Your task to perform on an android device: open sync settings in chrome Image 0: 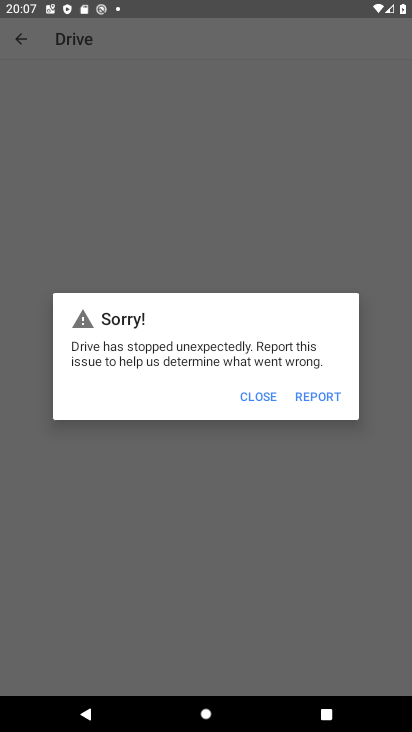
Step 0: press home button
Your task to perform on an android device: open sync settings in chrome Image 1: 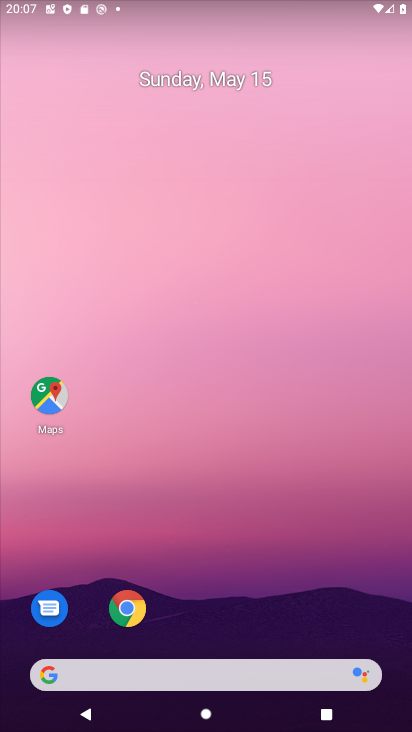
Step 1: click (121, 608)
Your task to perform on an android device: open sync settings in chrome Image 2: 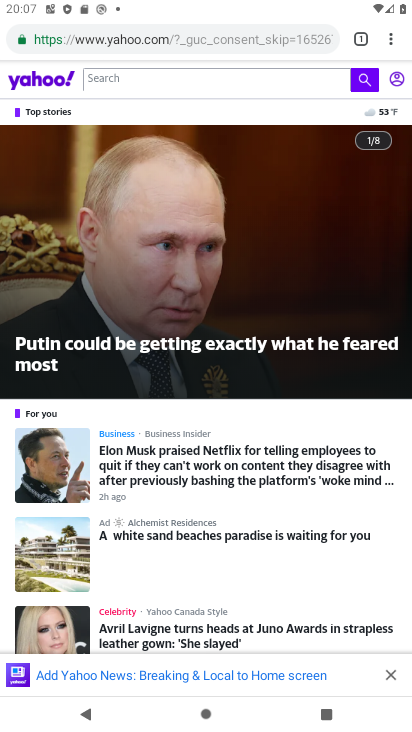
Step 2: click (380, 35)
Your task to perform on an android device: open sync settings in chrome Image 3: 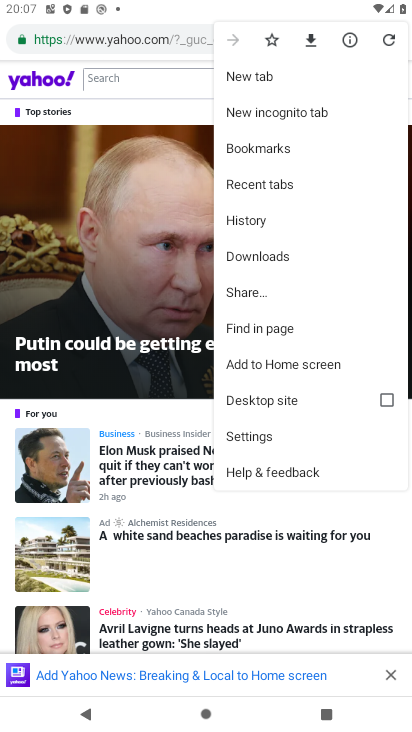
Step 3: click (261, 437)
Your task to perform on an android device: open sync settings in chrome Image 4: 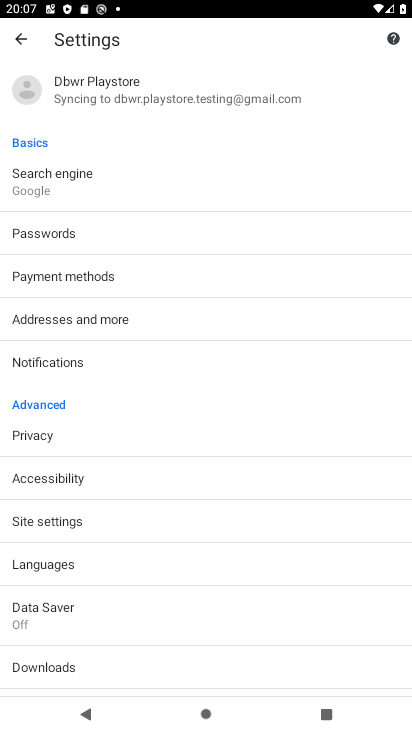
Step 4: drag from (79, 609) to (108, 356)
Your task to perform on an android device: open sync settings in chrome Image 5: 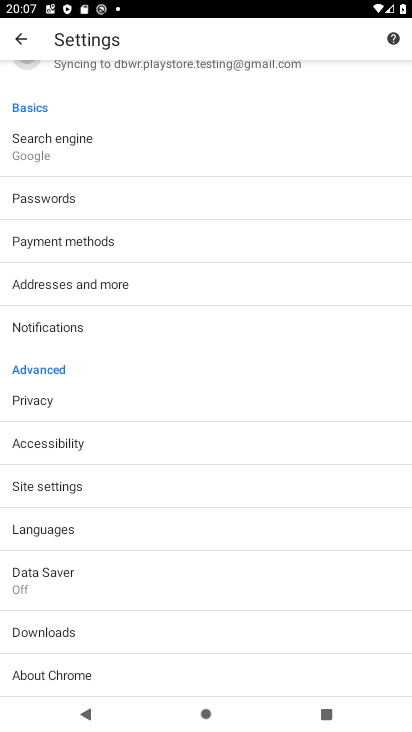
Step 5: click (33, 480)
Your task to perform on an android device: open sync settings in chrome Image 6: 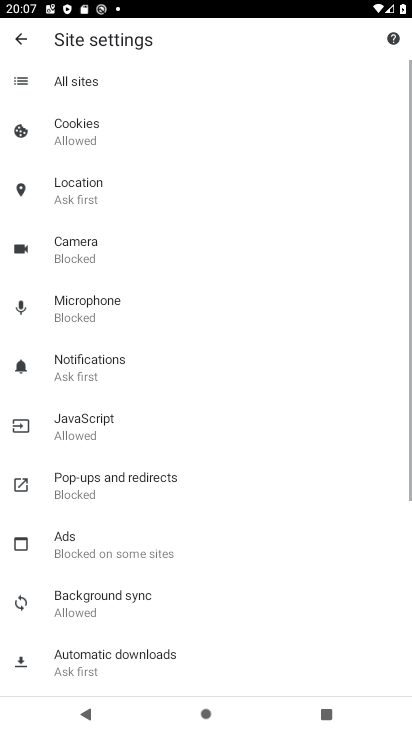
Step 6: click (95, 612)
Your task to perform on an android device: open sync settings in chrome Image 7: 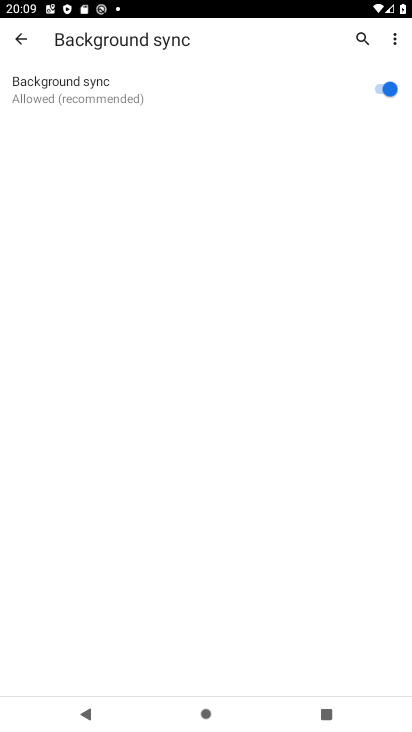
Step 7: task complete